Your task to perform on an android device: turn off location Image 0: 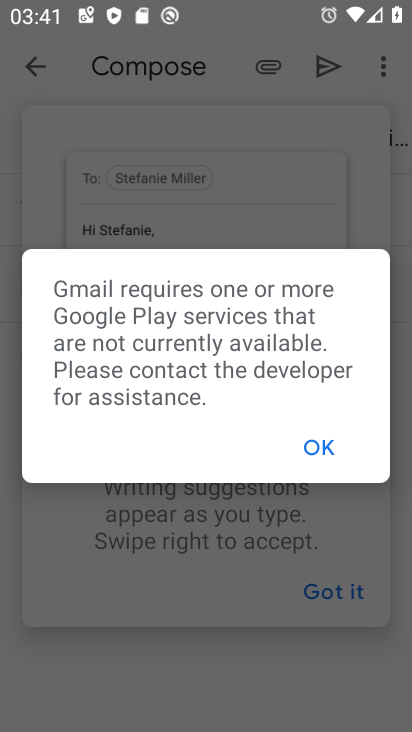
Step 0: press home button
Your task to perform on an android device: turn off location Image 1: 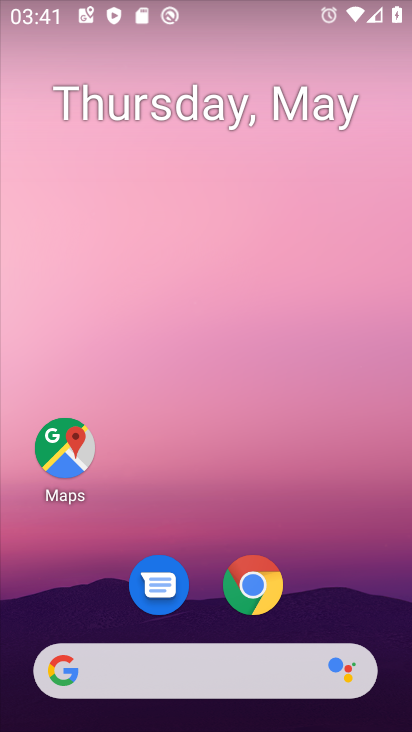
Step 1: drag from (183, 494) to (205, 87)
Your task to perform on an android device: turn off location Image 2: 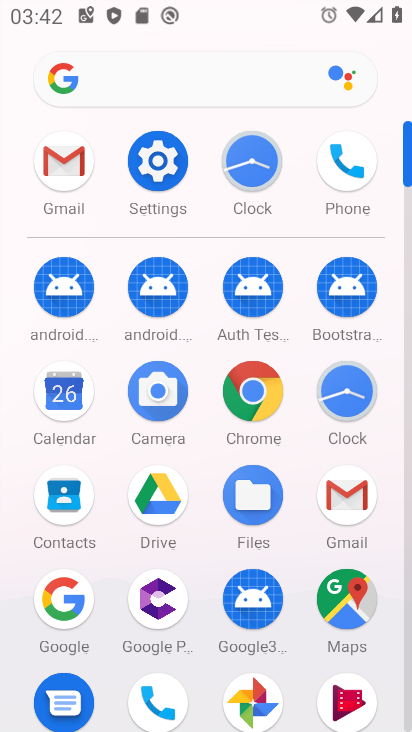
Step 2: click (161, 158)
Your task to perform on an android device: turn off location Image 3: 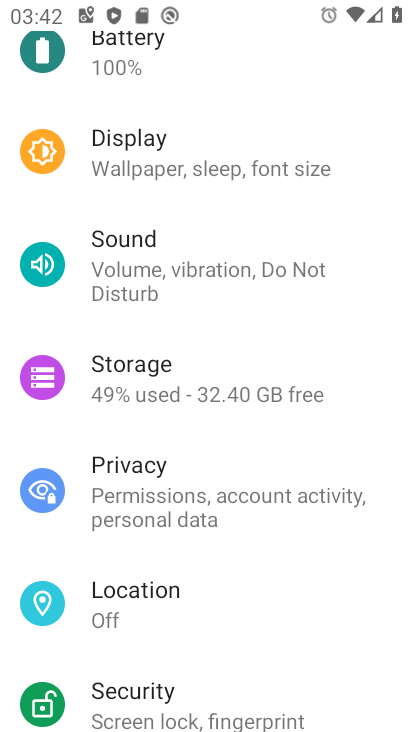
Step 3: drag from (229, 213) to (251, 556)
Your task to perform on an android device: turn off location Image 4: 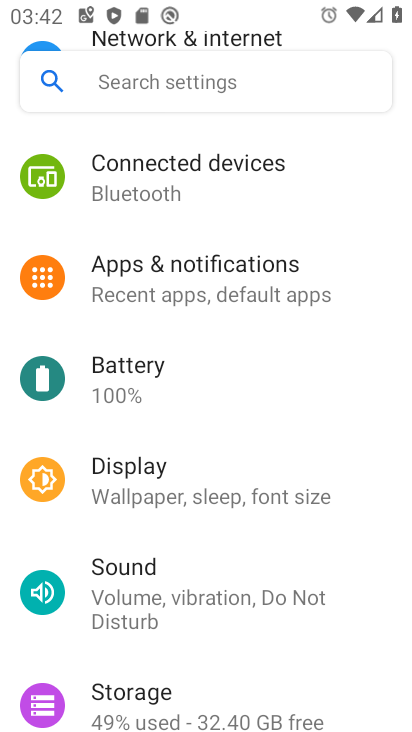
Step 4: drag from (250, 446) to (246, 89)
Your task to perform on an android device: turn off location Image 5: 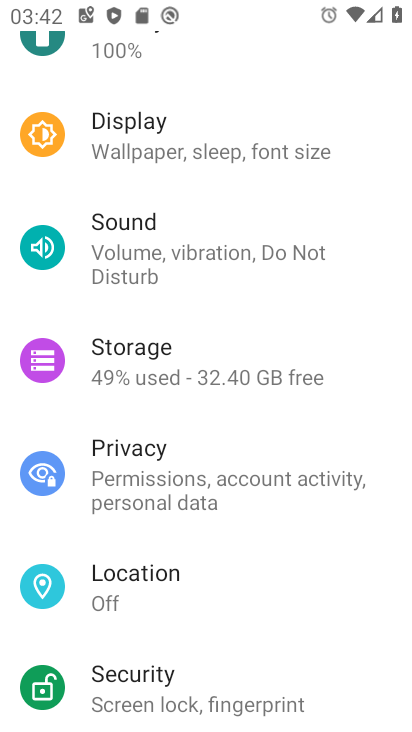
Step 5: click (178, 578)
Your task to perform on an android device: turn off location Image 6: 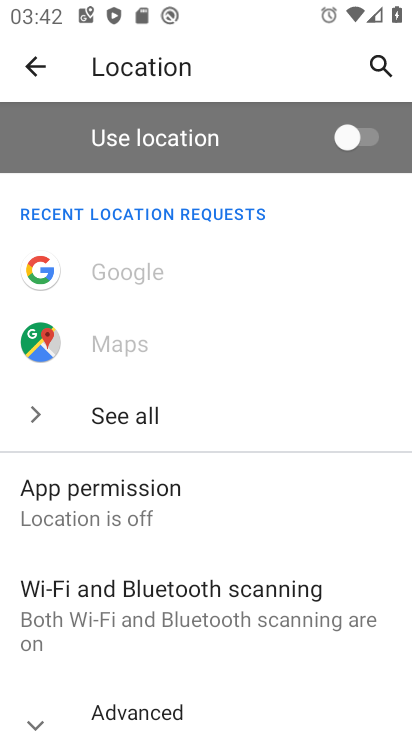
Step 6: task complete